Your task to perform on an android device: Turn off the flashlight Image 0: 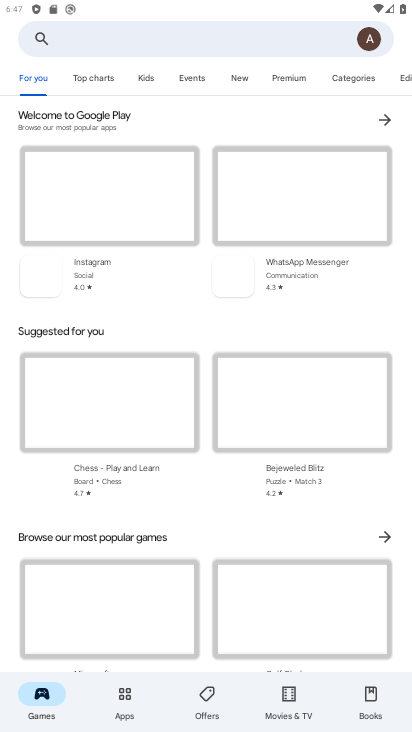
Step 0: drag from (231, 616) to (171, 304)
Your task to perform on an android device: Turn off the flashlight Image 1: 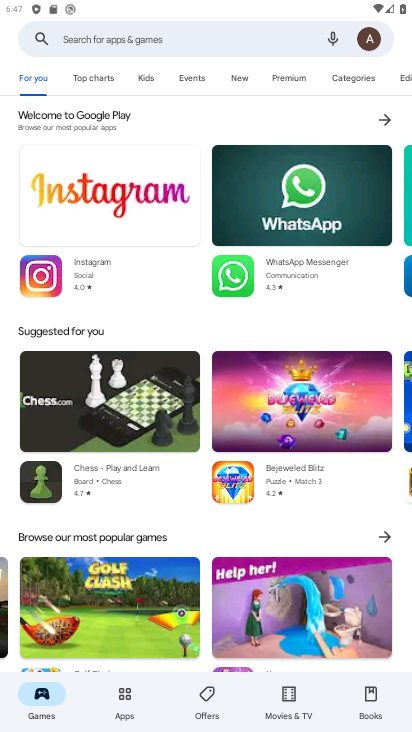
Step 1: press home button
Your task to perform on an android device: Turn off the flashlight Image 2: 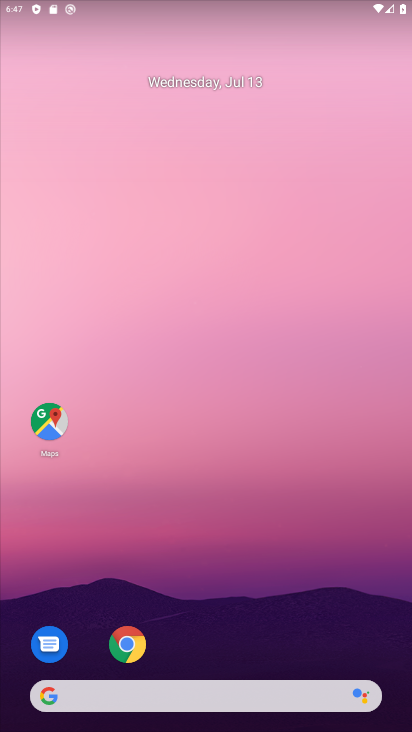
Step 2: drag from (223, 629) to (151, 84)
Your task to perform on an android device: Turn off the flashlight Image 3: 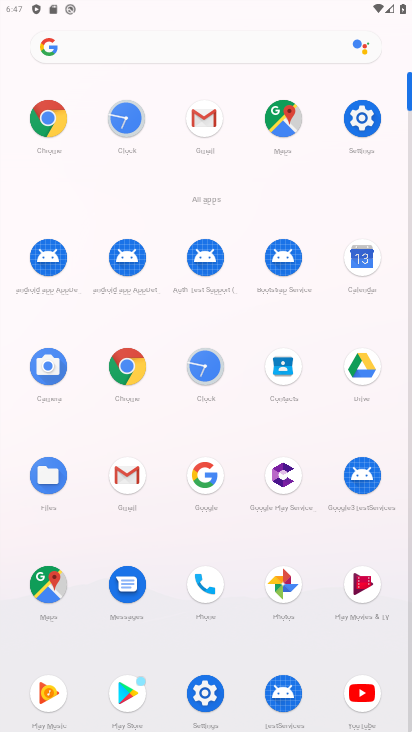
Step 3: click (361, 119)
Your task to perform on an android device: Turn off the flashlight Image 4: 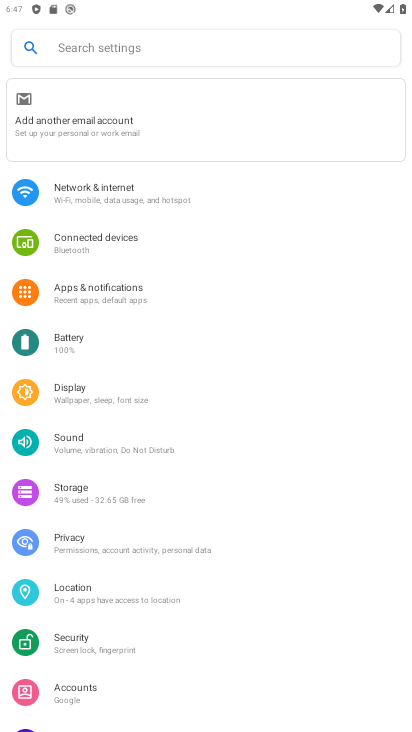
Step 4: click (65, 333)
Your task to perform on an android device: Turn off the flashlight Image 5: 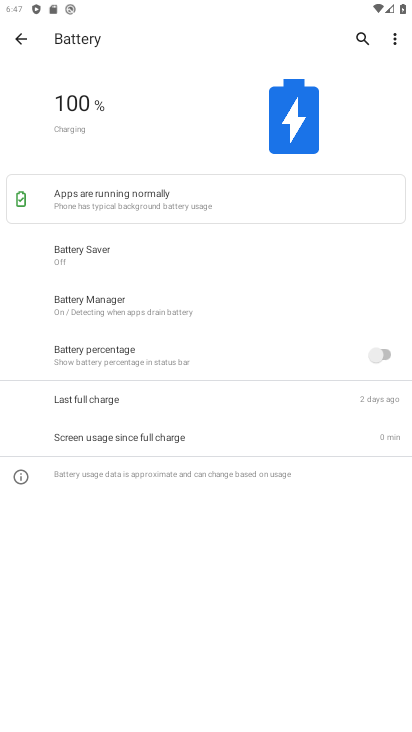
Step 5: task complete